Your task to perform on an android device: Open ESPN.com Image 0: 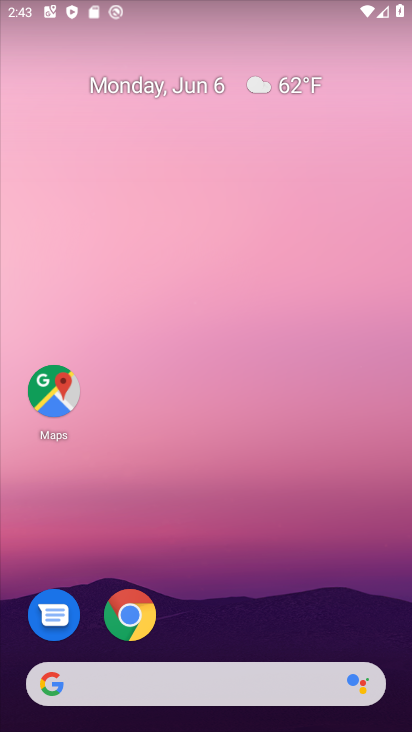
Step 0: drag from (290, 656) to (269, 62)
Your task to perform on an android device: Open ESPN.com Image 1: 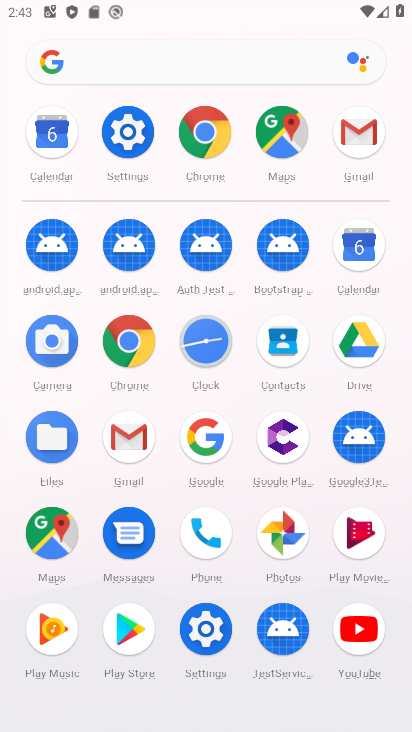
Step 1: click (145, 345)
Your task to perform on an android device: Open ESPN.com Image 2: 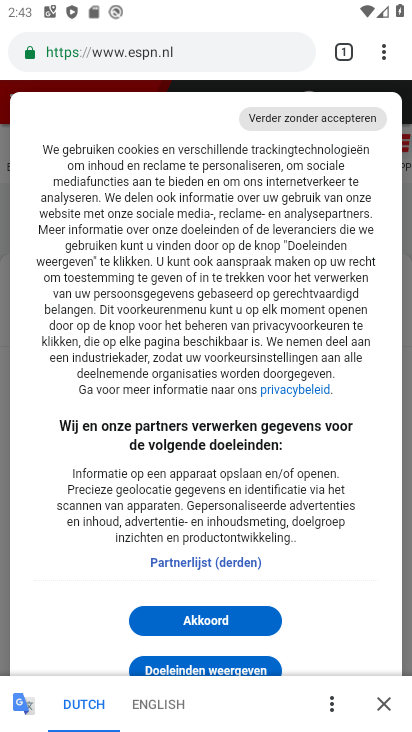
Step 2: press back button
Your task to perform on an android device: Open ESPN.com Image 3: 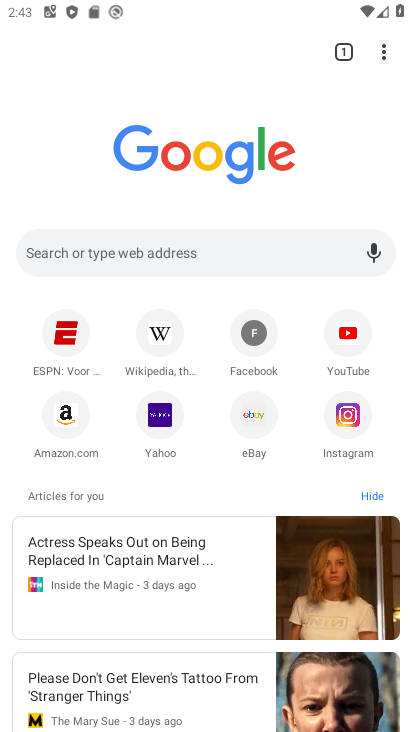
Step 3: click (72, 325)
Your task to perform on an android device: Open ESPN.com Image 4: 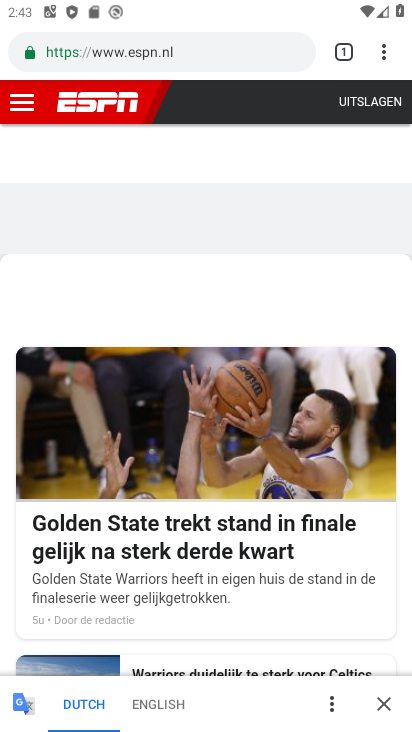
Step 4: task complete